Your task to perform on an android device: turn off priority inbox in the gmail app Image 0: 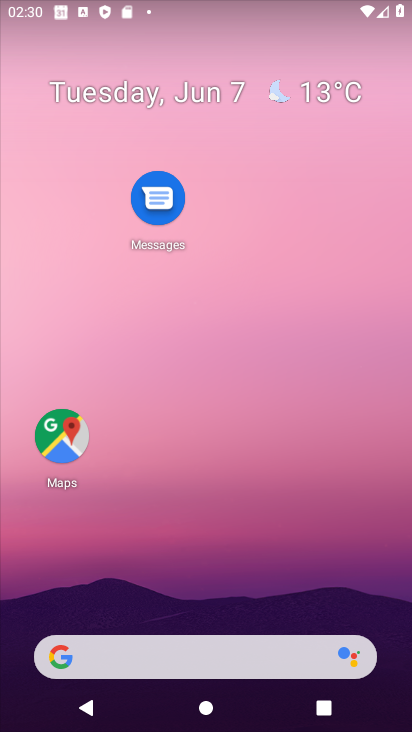
Step 0: drag from (208, 605) to (185, 434)
Your task to perform on an android device: turn off priority inbox in the gmail app Image 1: 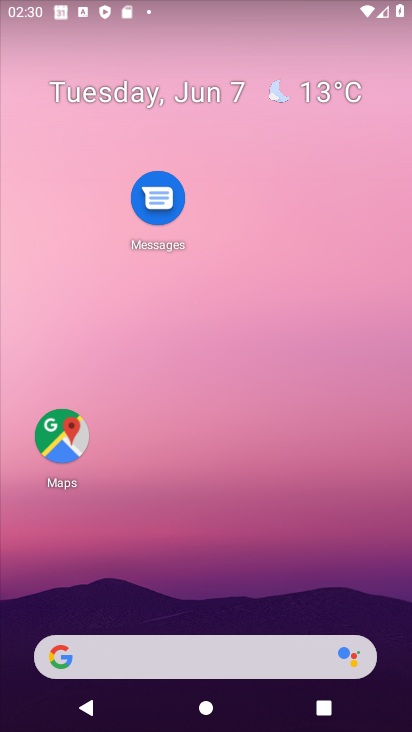
Step 1: drag from (196, 593) to (188, 148)
Your task to perform on an android device: turn off priority inbox in the gmail app Image 2: 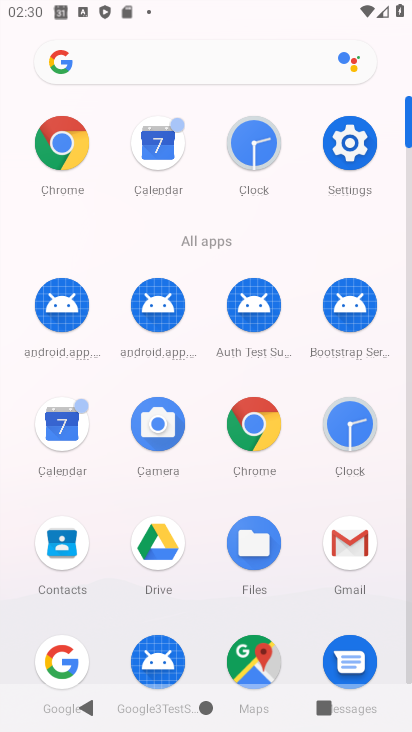
Step 2: click (343, 568)
Your task to perform on an android device: turn off priority inbox in the gmail app Image 3: 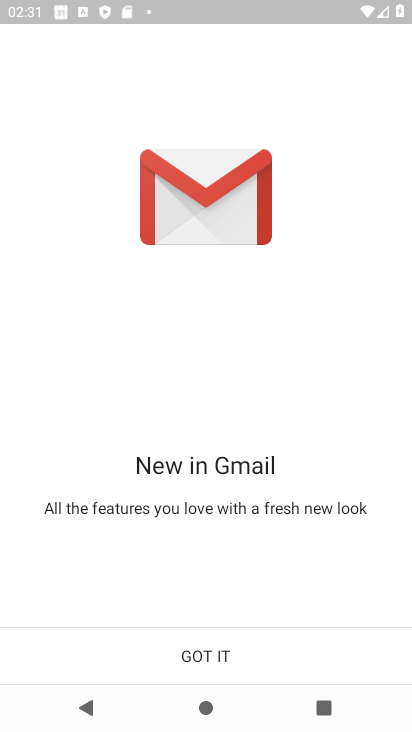
Step 3: click (204, 665)
Your task to perform on an android device: turn off priority inbox in the gmail app Image 4: 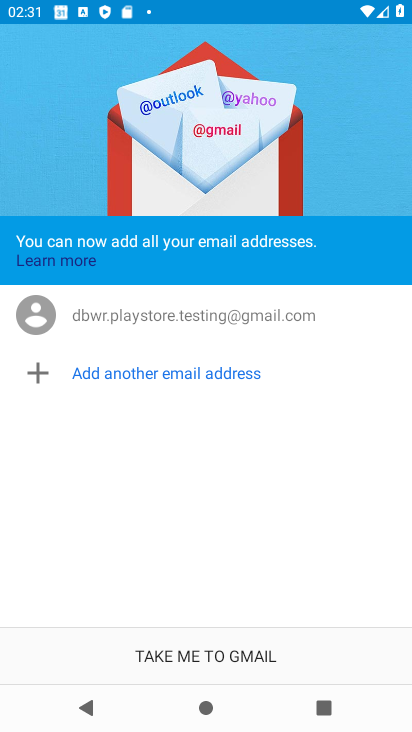
Step 4: click (204, 663)
Your task to perform on an android device: turn off priority inbox in the gmail app Image 5: 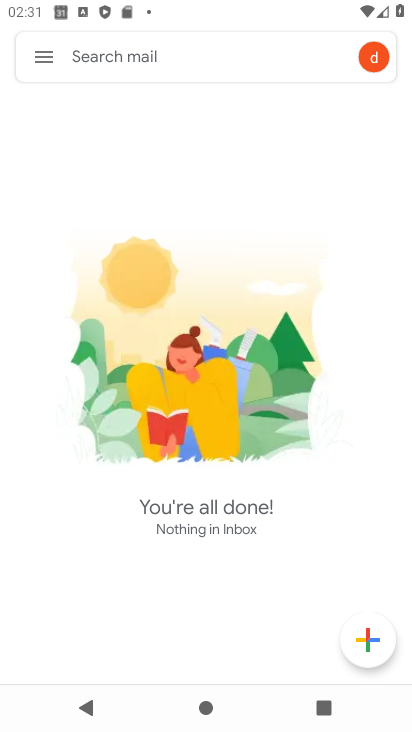
Step 5: click (35, 58)
Your task to perform on an android device: turn off priority inbox in the gmail app Image 6: 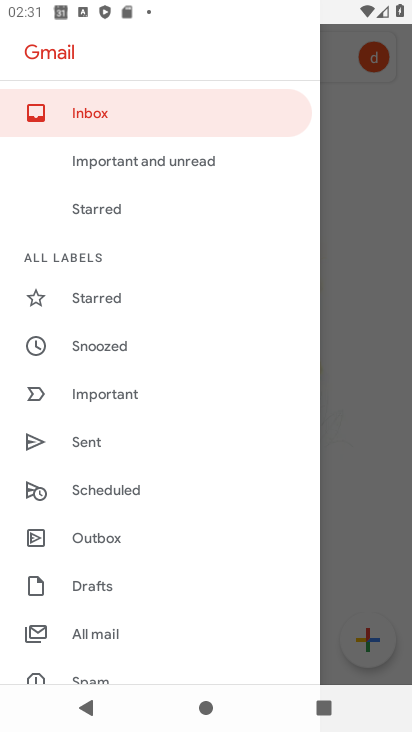
Step 6: drag from (131, 624) to (73, 151)
Your task to perform on an android device: turn off priority inbox in the gmail app Image 7: 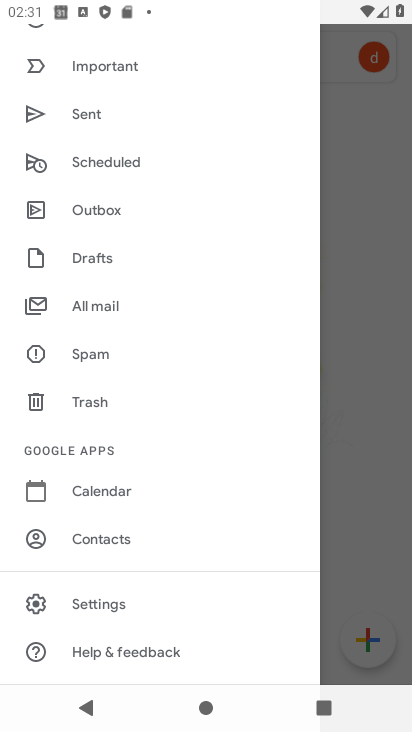
Step 7: click (99, 604)
Your task to perform on an android device: turn off priority inbox in the gmail app Image 8: 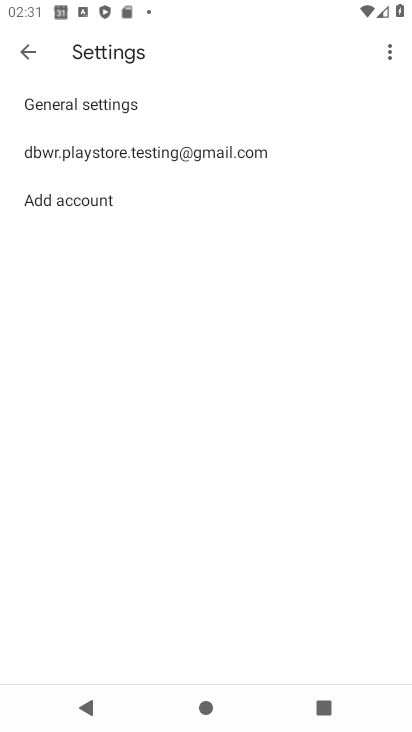
Step 8: click (231, 151)
Your task to perform on an android device: turn off priority inbox in the gmail app Image 9: 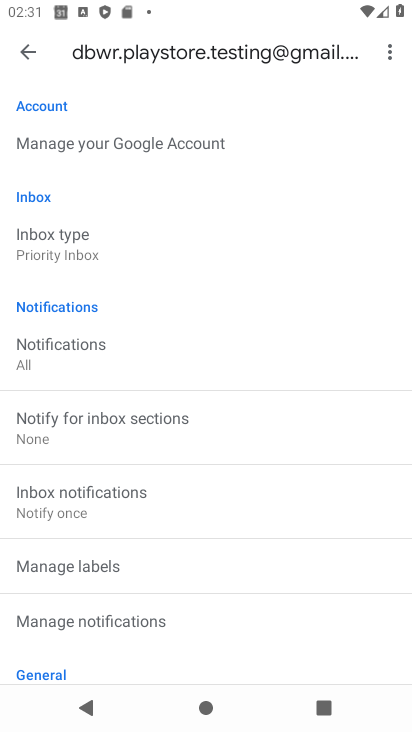
Step 9: click (57, 271)
Your task to perform on an android device: turn off priority inbox in the gmail app Image 10: 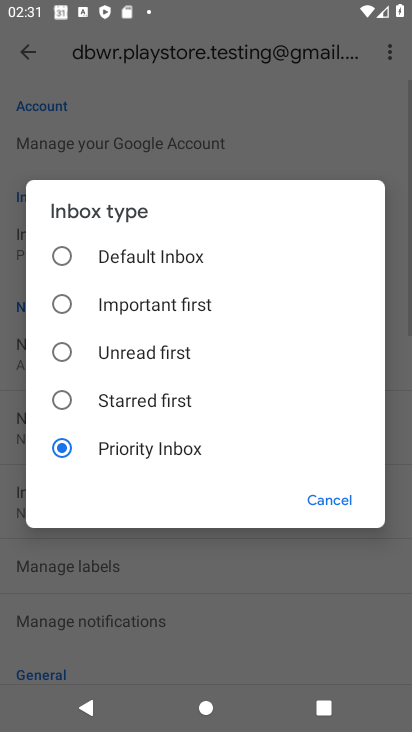
Step 10: click (79, 262)
Your task to perform on an android device: turn off priority inbox in the gmail app Image 11: 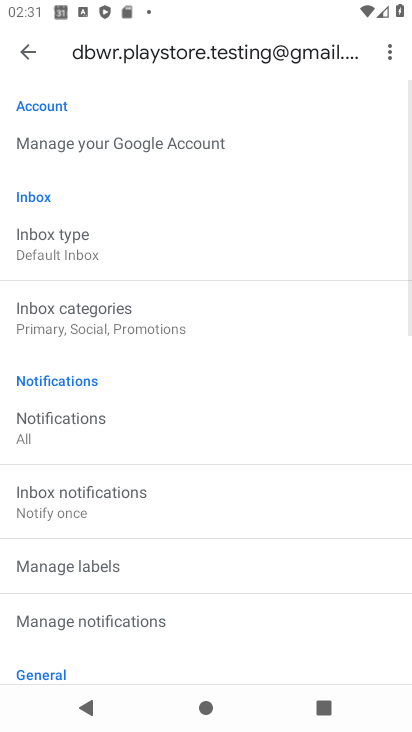
Step 11: task complete